Your task to perform on an android device: open a new tab in the chrome app Image 0: 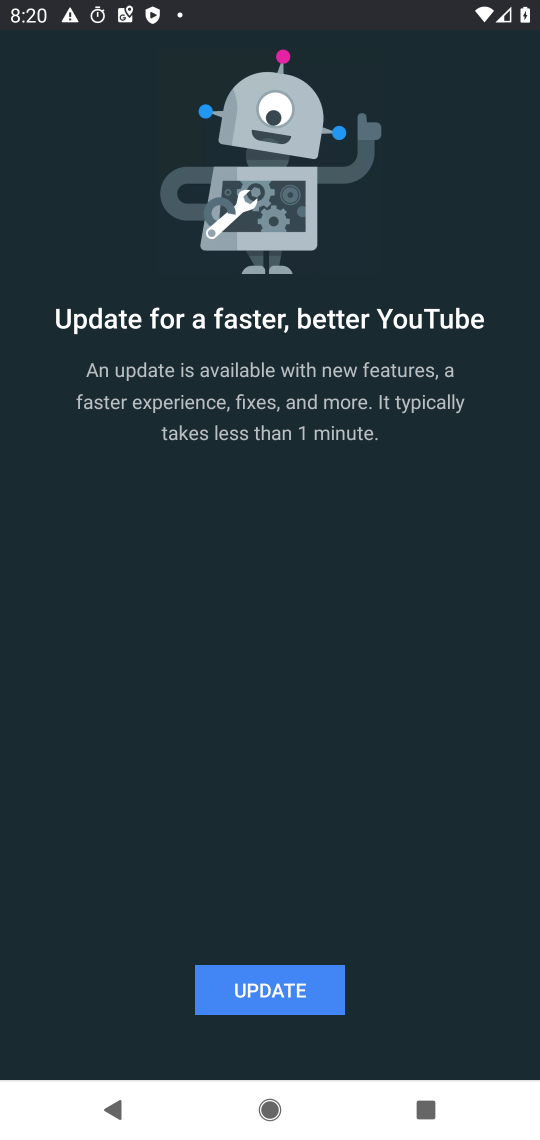
Step 0: press home button
Your task to perform on an android device: open a new tab in the chrome app Image 1: 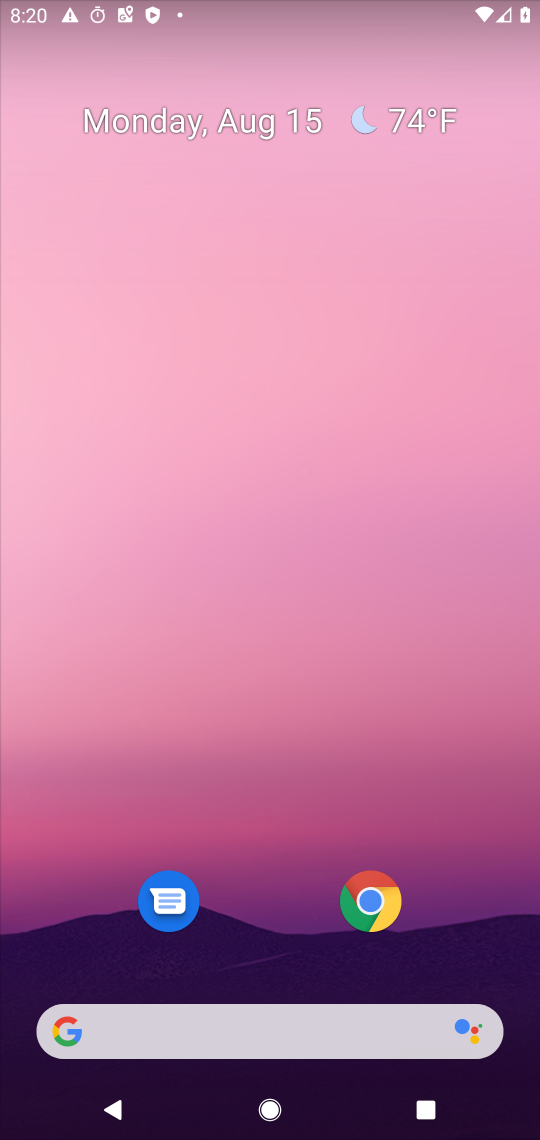
Step 1: click (393, 896)
Your task to perform on an android device: open a new tab in the chrome app Image 2: 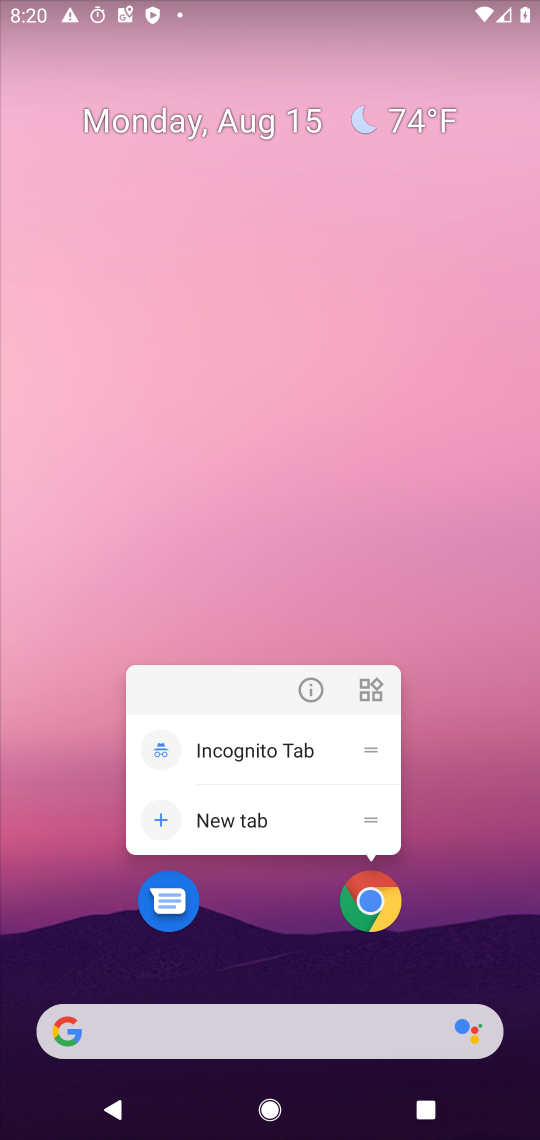
Step 2: click (352, 925)
Your task to perform on an android device: open a new tab in the chrome app Image 3: 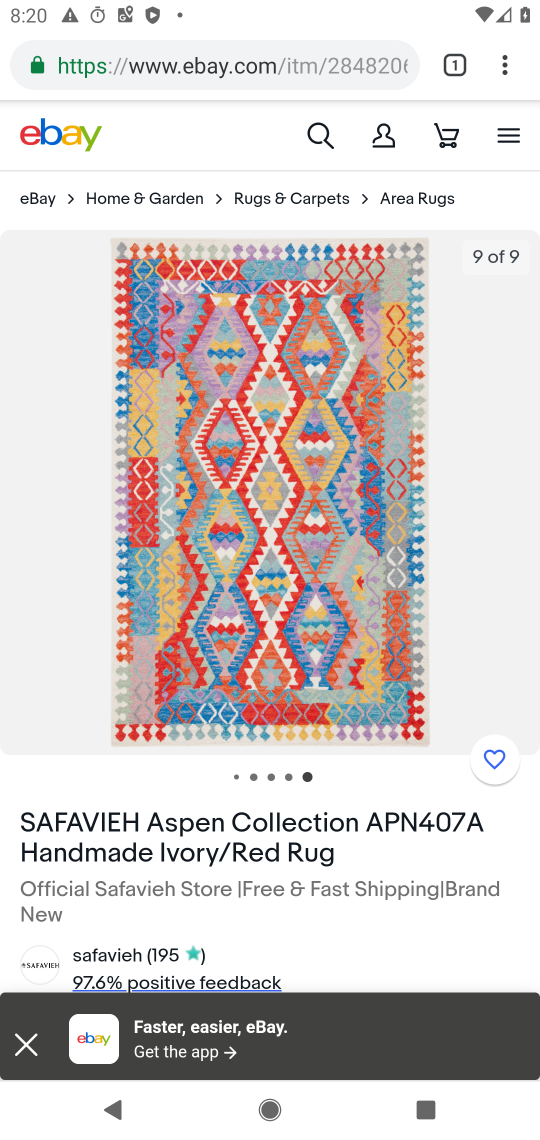
Step 3: click (498, 64)
Your task to perform on an android device: open a new tab in the chrome app Image 4: 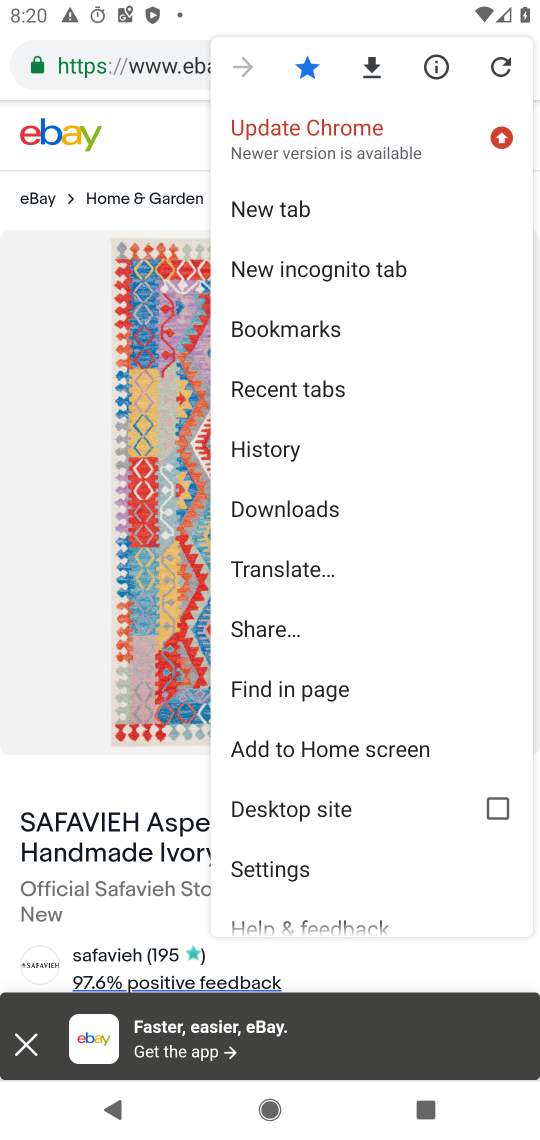
Step 4: click (293, 211)
Your task to perform on an android device: open a new tab in the chrome app Image 5: 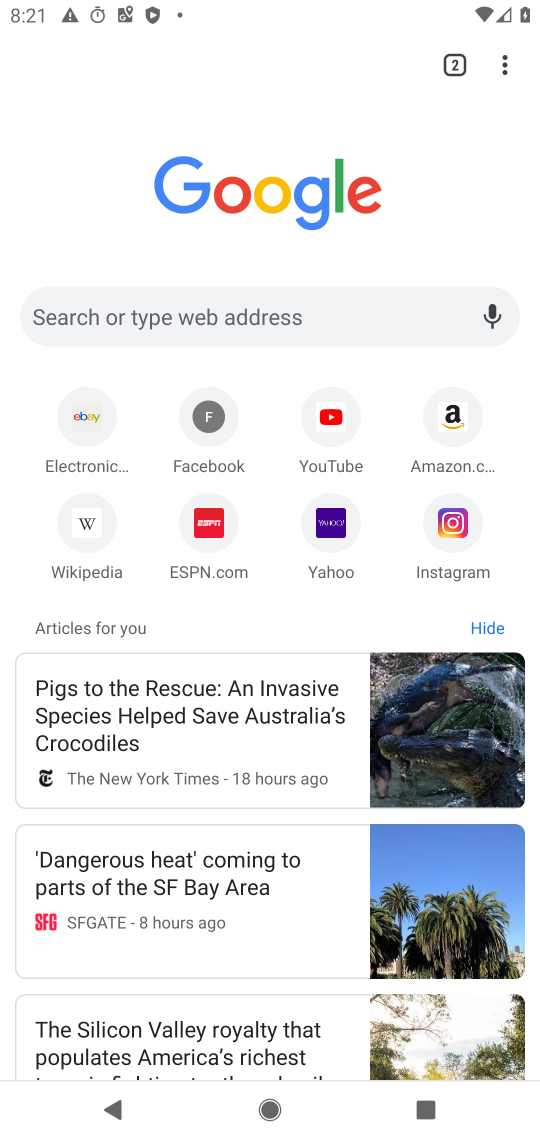
Step 5: task complete